Your task to perform on an android device: Open Youtube and go to "Your channel" Image 0: 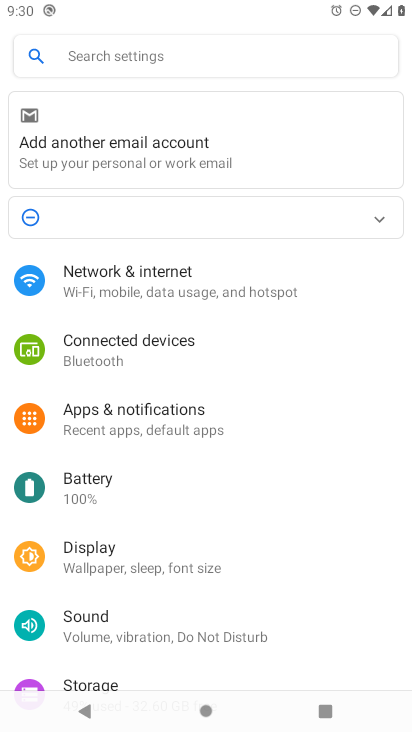
Step 0: press home button
Your task to perform on an android device: Open Youtube and go to "Your channel" Image 1: 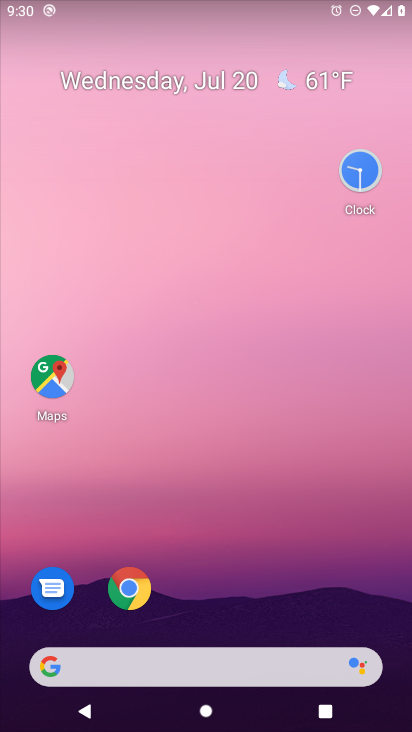
Step 1: drag from (67, 546) to (177, 192)
Your task to perform on an android device: Open Youtube and go to "Your channel" Image 2: 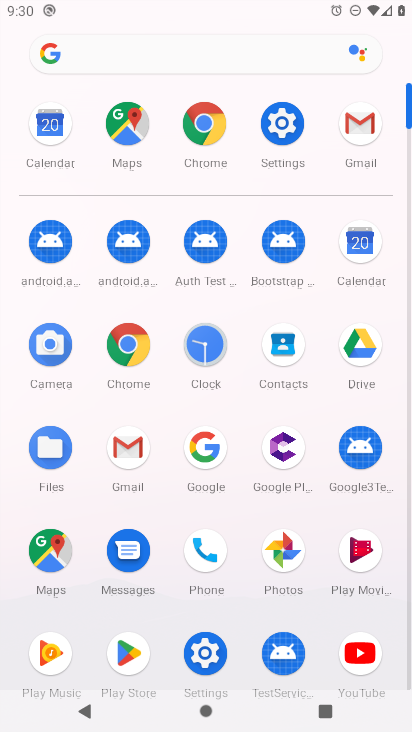
Step 2: click (366, 652)
Your task to perform on an android device: Open Youtube and go to "Your channel" Image 3: 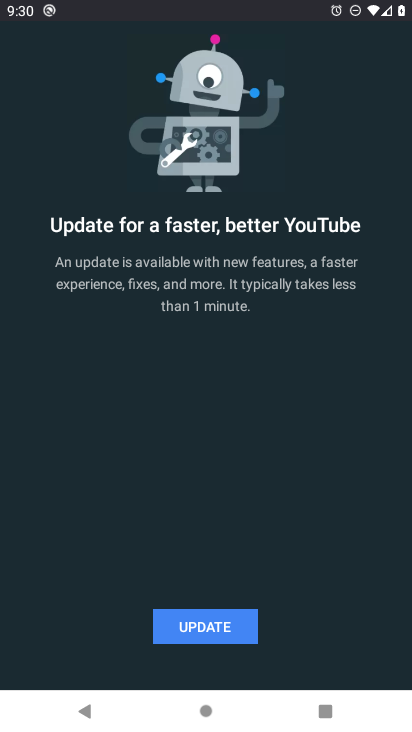
Step 3: click (219, 612)
Your task to perform on an android device: Open Youtube and go to "Your channel" Image 4: 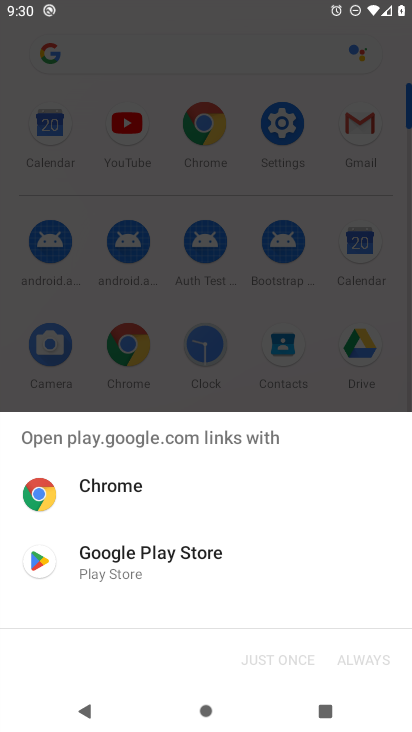
Step 4: click (141, 573)
Your task to perform on an android device: Open Youtube and go to "Your channel" Image 5: 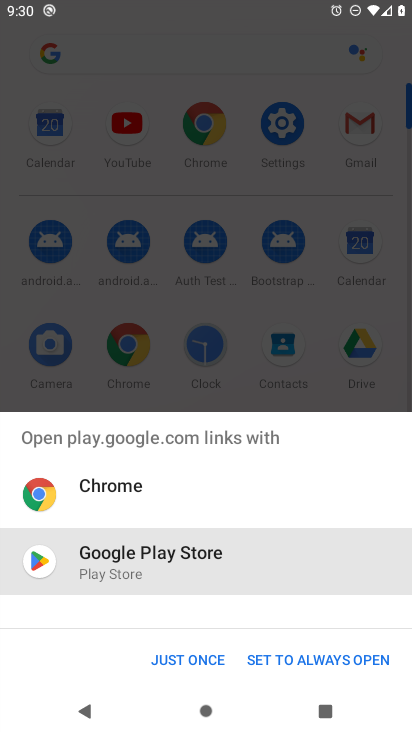
Step 5: click (206, 663)
Your task to perform on an android device: Open Youtube and go to "Your channel" Image 6: 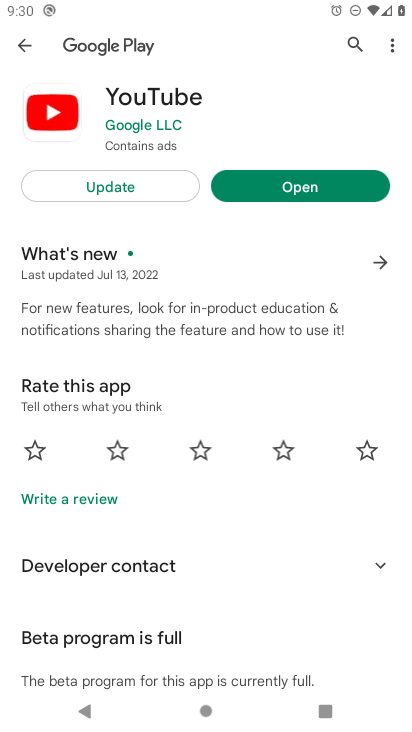
Step 6: click (272, 195)
Your task to perform on an android device: Open Youtube and go to "Your channel" Image 7: 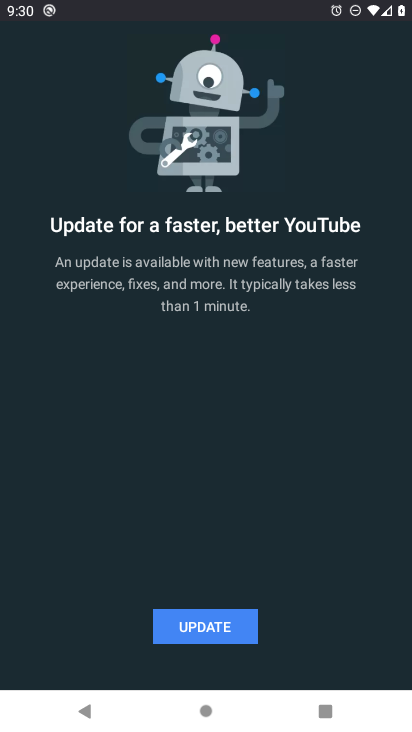
Step 7: task complete